Your task to perform on an android device: When is my next appointment? Image 0: 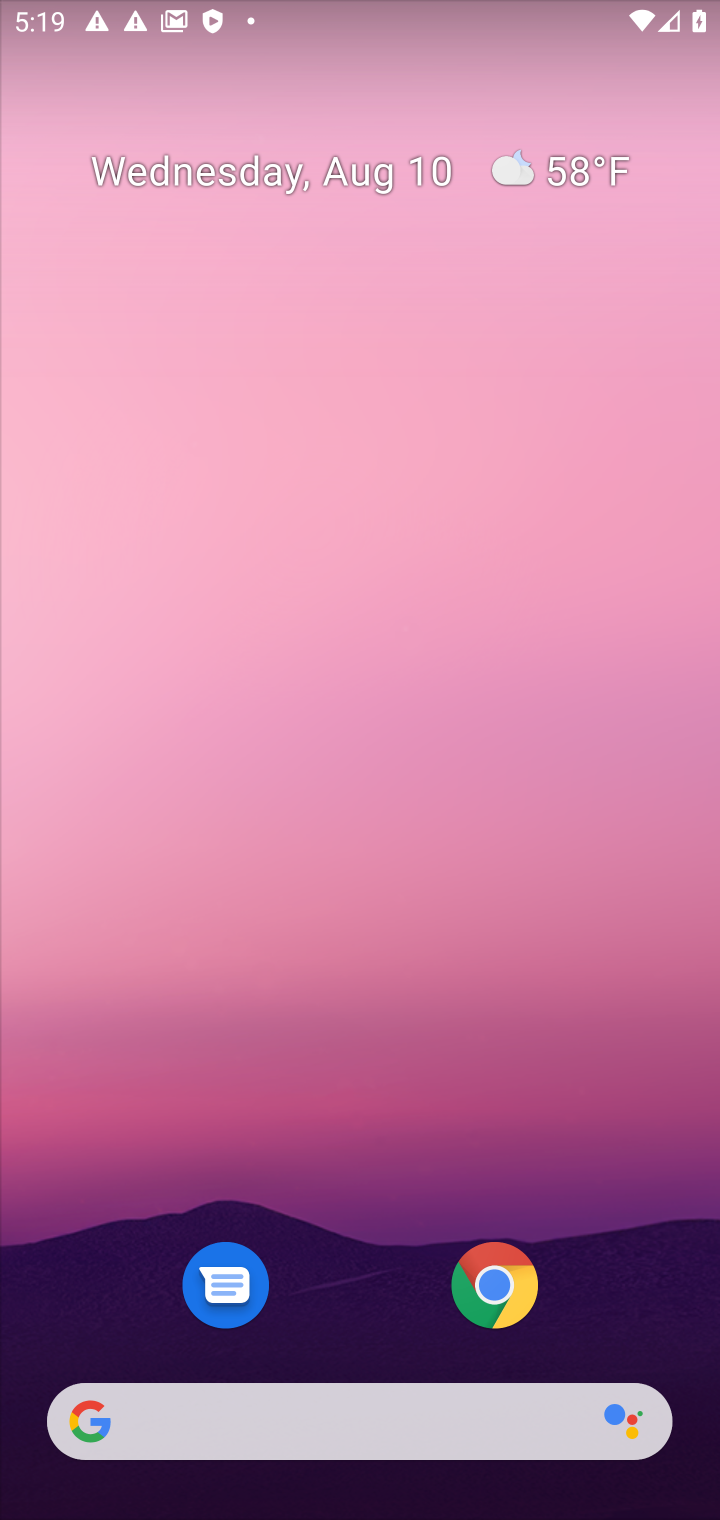
Step 0: press home button
Your task to perform on an android device: When is my next appointment? Image 1: 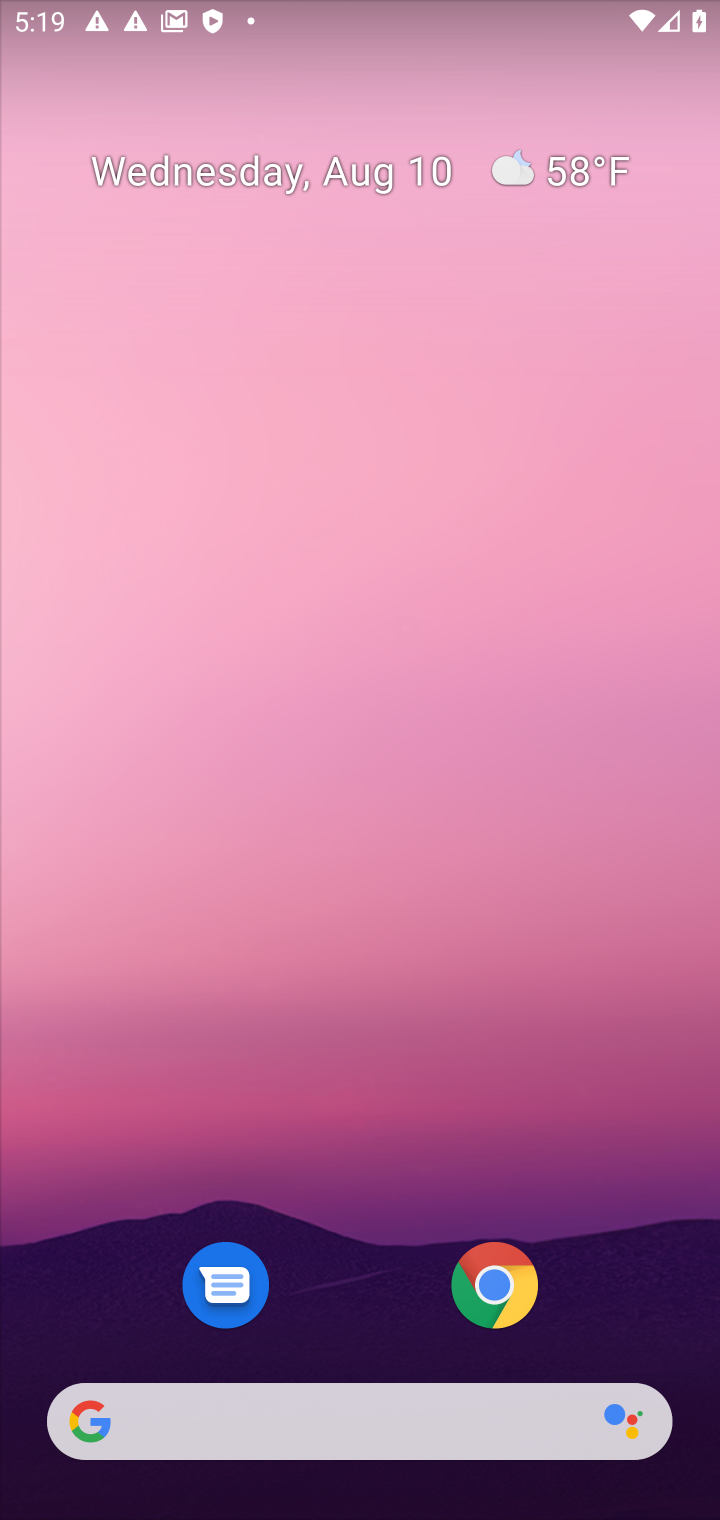
Step 1: press home button
Your task to perform on an android device: When is my next appointment? Image 2: 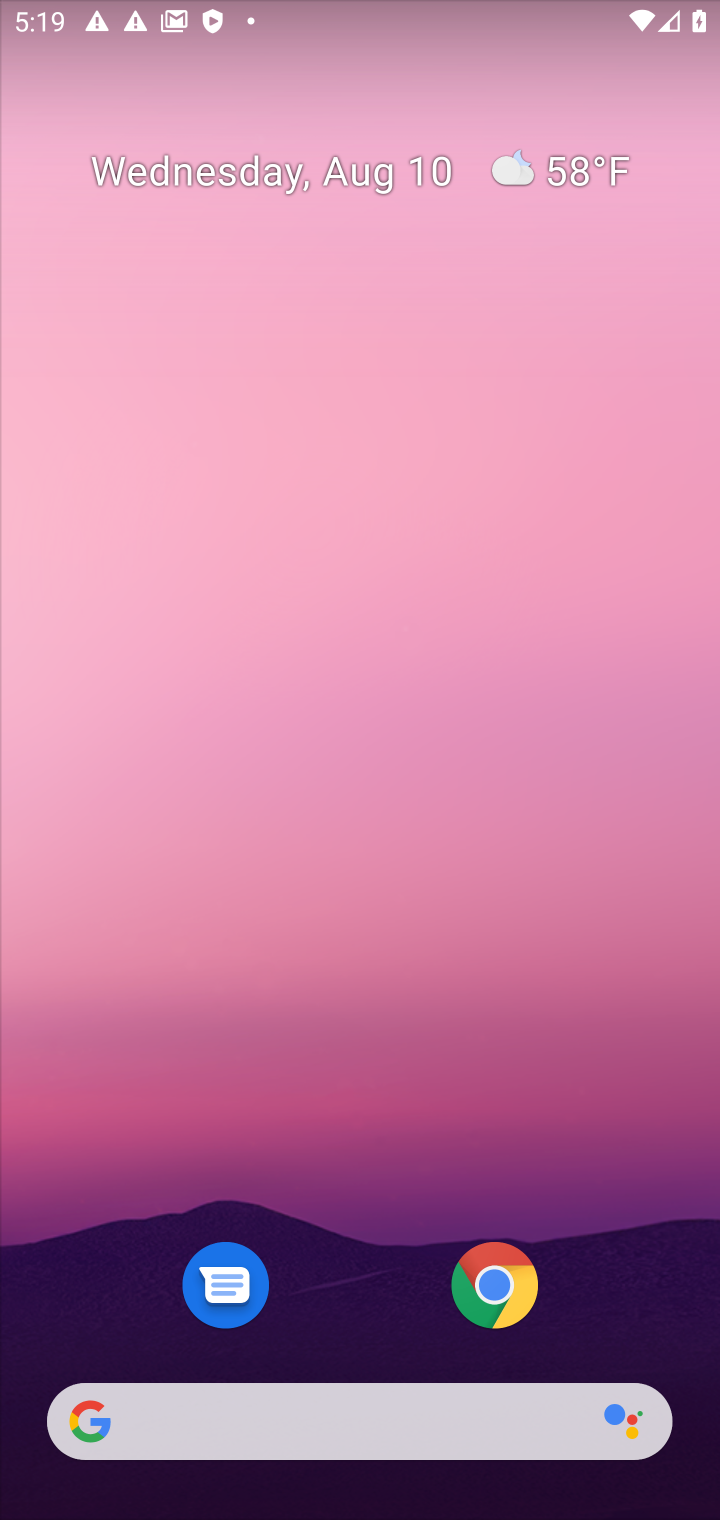
Step 2: drag from (343, 1368) to (328, 336)
Your task to perform on an android device: When is my next appointment? Image 3: 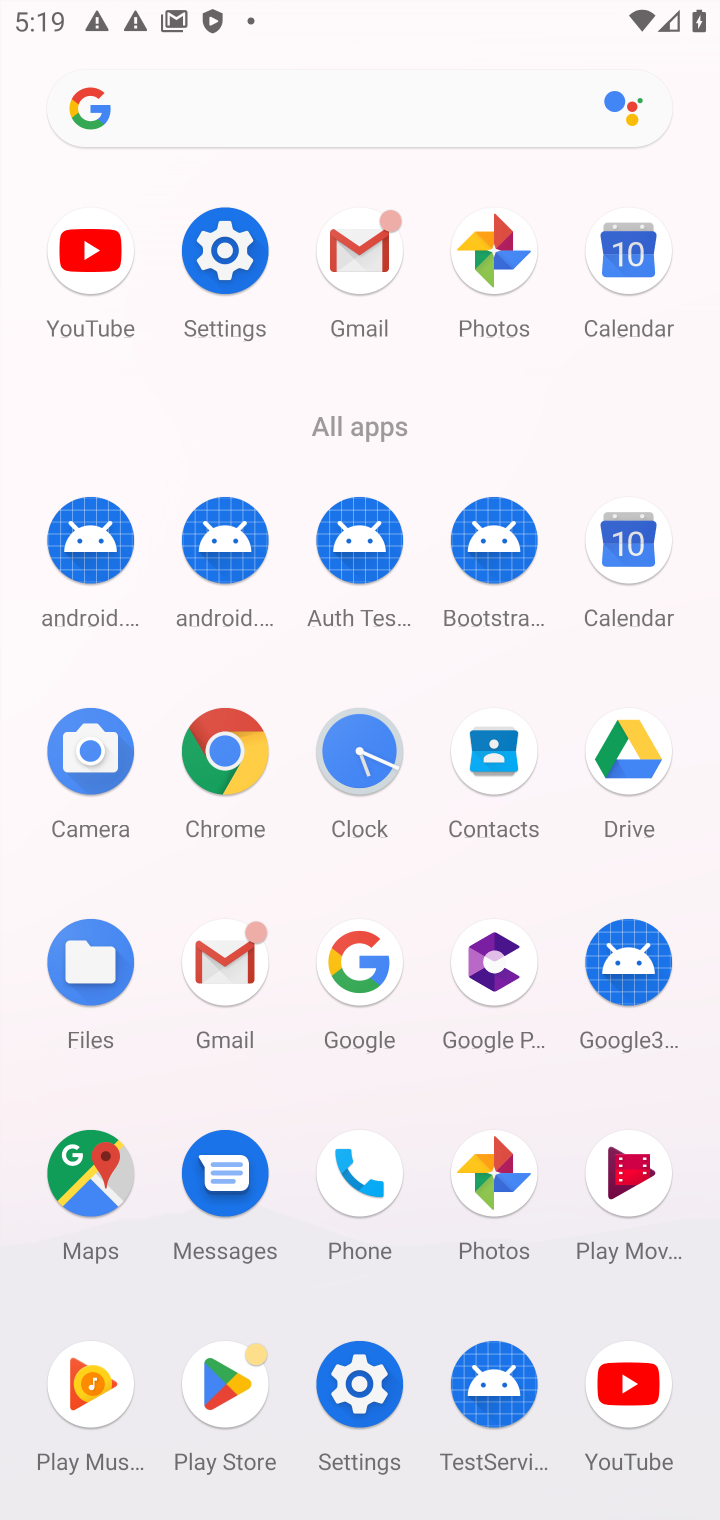
Step 3: click (642, 532)
Your task to perform on an android device: When is my next appointment? Image 4: 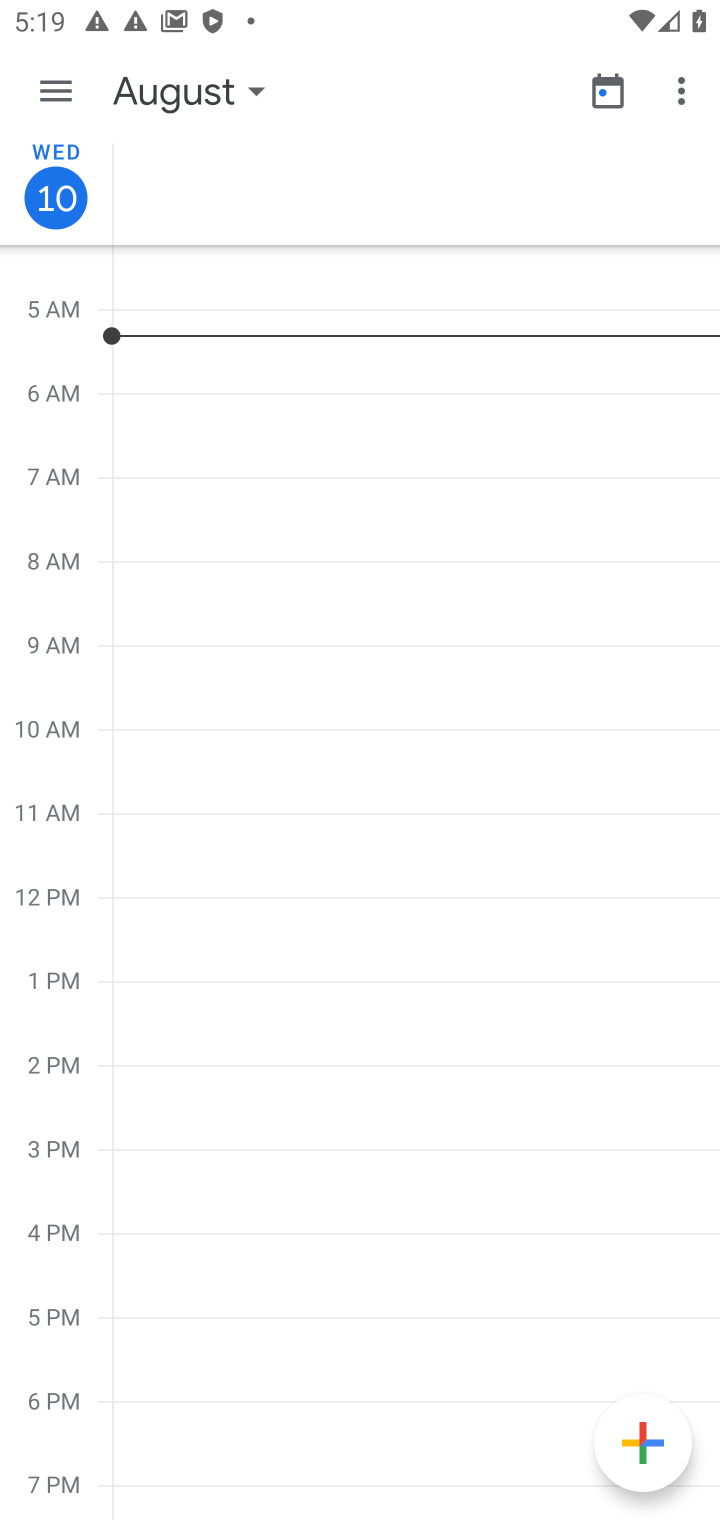
Step 4: click (253, 93)
Your task to perform on an android device: When is my next appointment? Image 5: 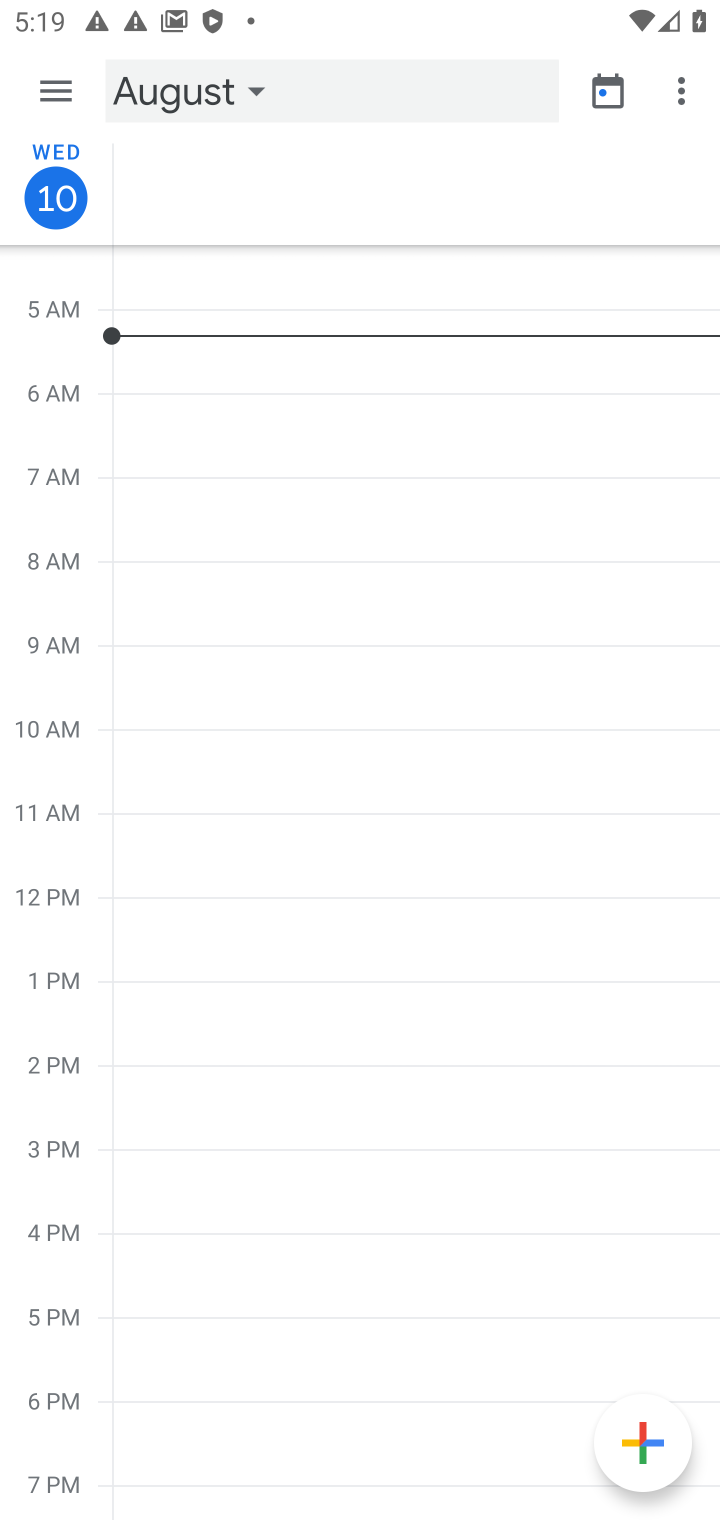
Step 5: click (253, 93)
Your task to perform on an android device: When is my next appointment? Image 6: 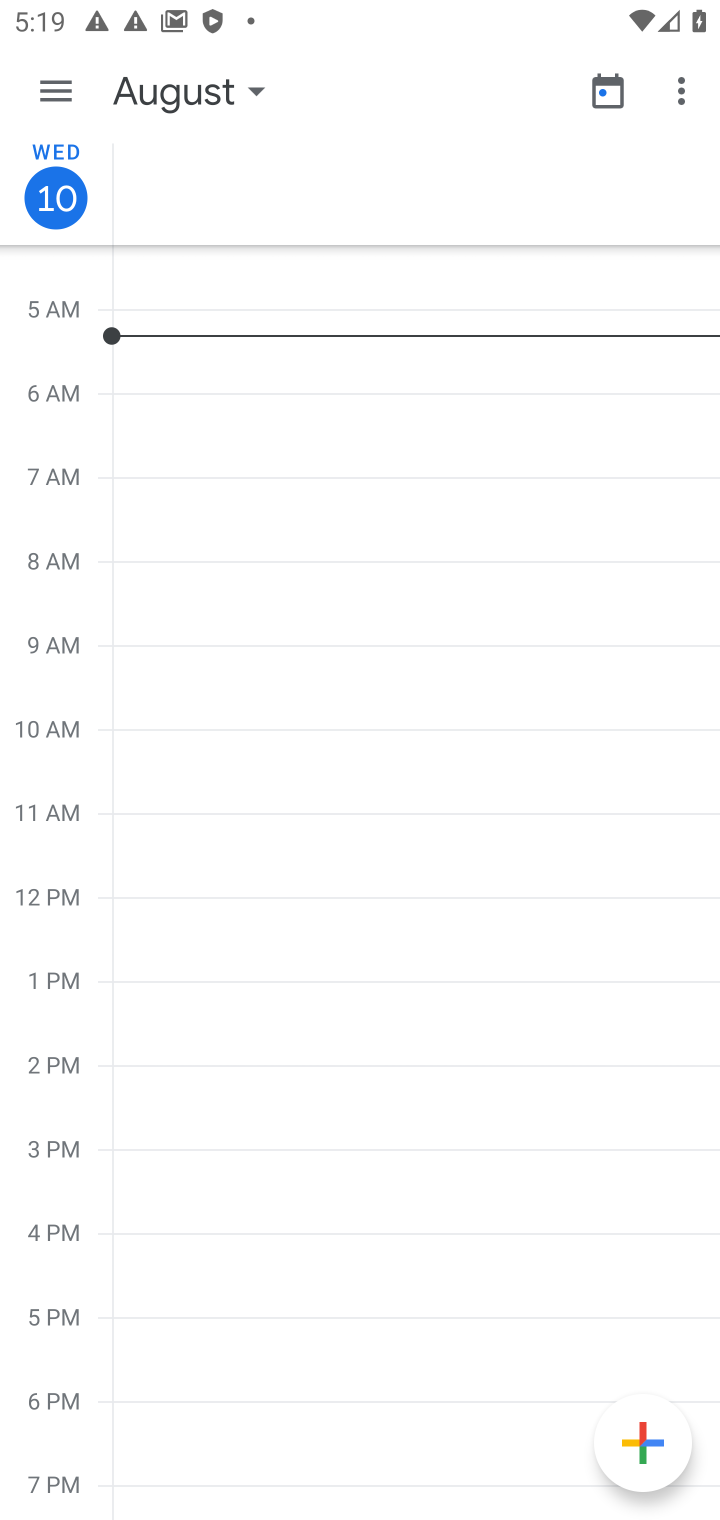
Step 6: click (253, 93)
Your task to perform on an android device: When is my next appointment? Image 7: 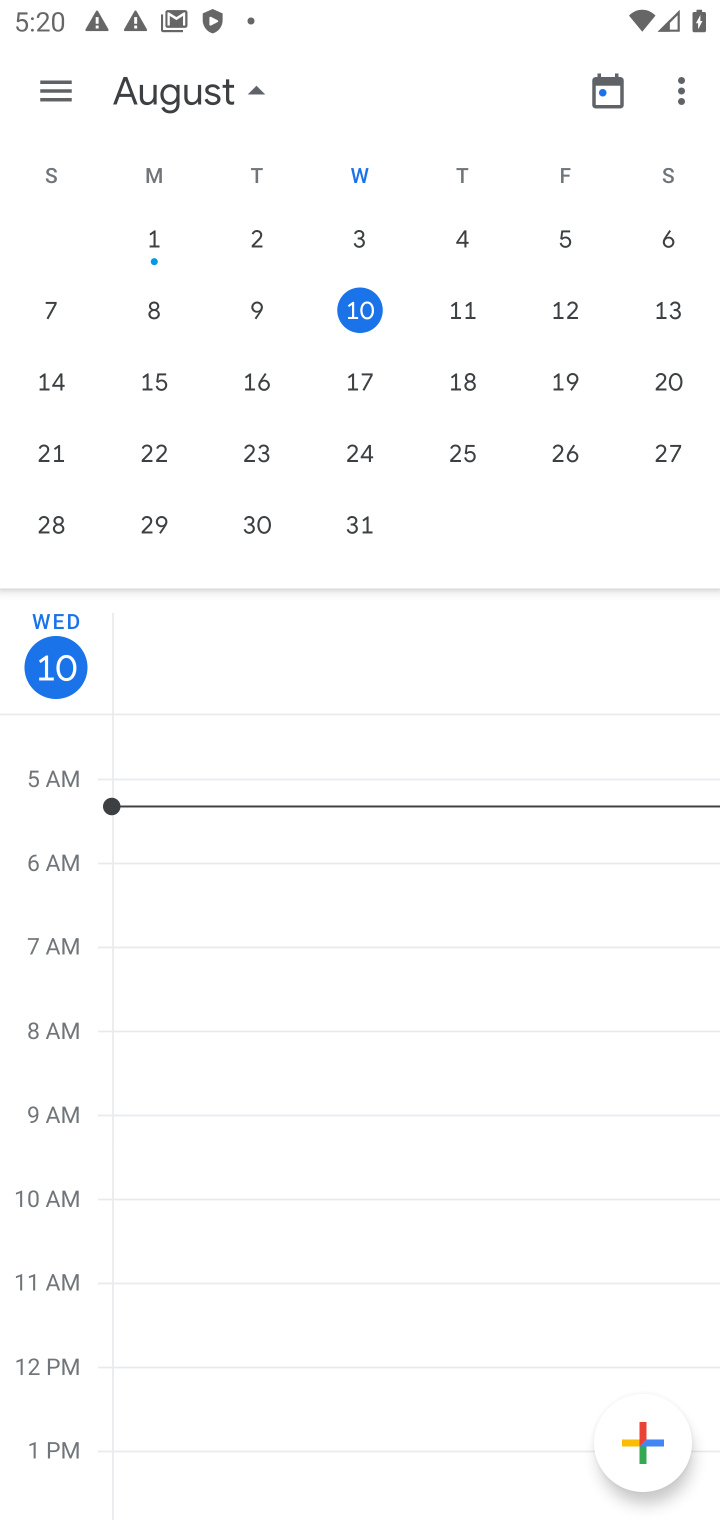
Step 7: task complete